Your task to perform on an android device: toggle notifications settings in the gmail app Image 0: 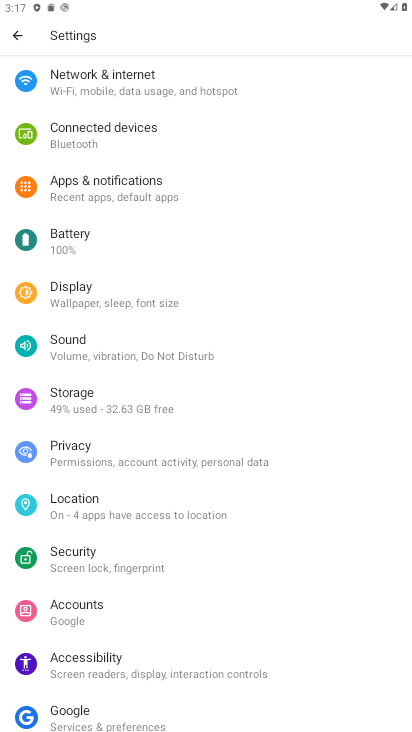
Step 0: press home button
Your task to perform on an android device: toggle notifications settings in the gmail app Image 1: 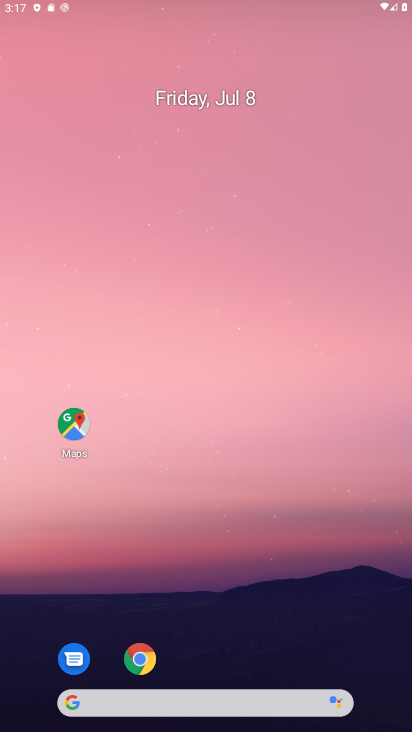
Step 1: drag from (207, 512) to (157, 138)
Your task to perform on an android device: toggle notifications settings in the gmail app Image 2: 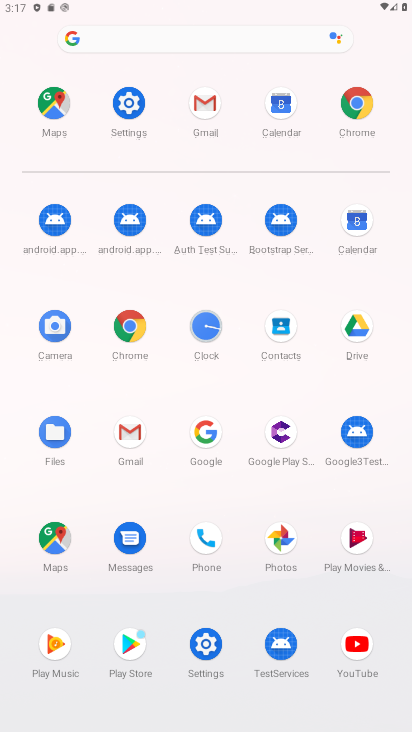
Step 2: click (136, 442)
Your task to perform on an android device: toggle notifications settings in the gmail app Image 3: 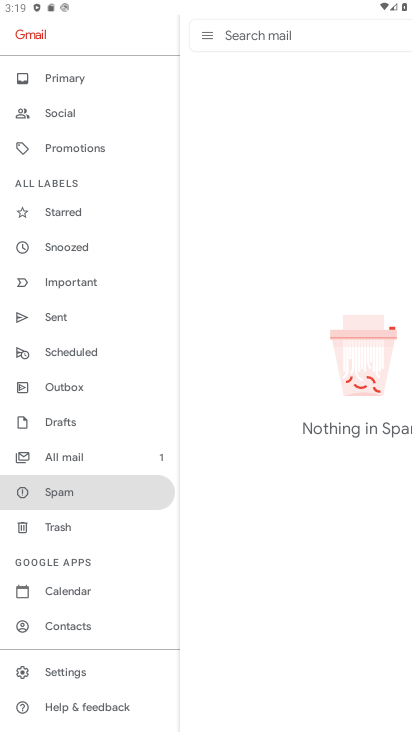
Step 3: click (81, 678)
Your task to perform on an android device: toggle notifications settings in the gmail app Image 4: 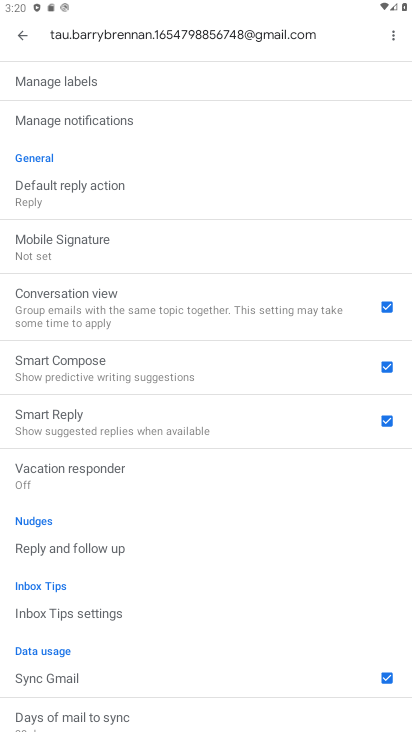
Step 4: click (118, 127)
Your task to perform on an android device: toggle notifications settings in the gmail app Image 5: 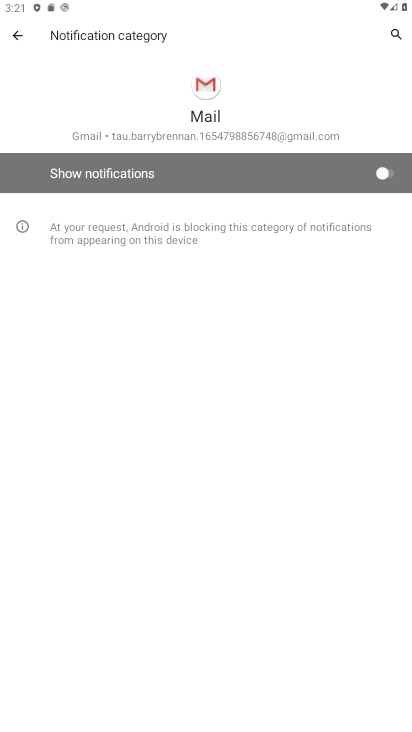
Step 5: click (324, 467)
Your task to perform on an android device: toggle notifications settings in the gmail app Image 6: 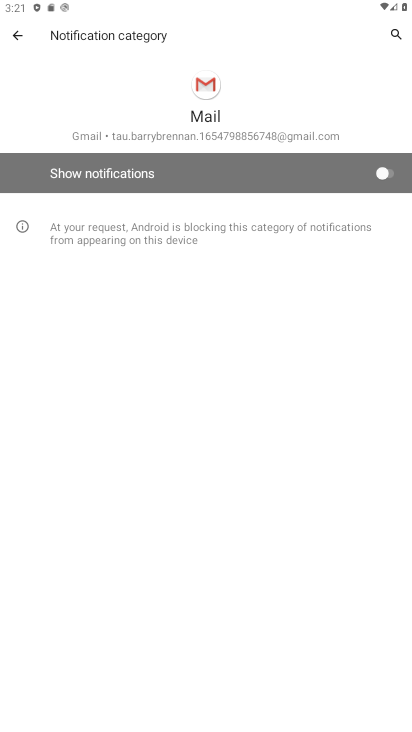
Step 6: click (379, 182)
Your task to perform on an android device: toggle notifications settings in the gmail app Image 7: 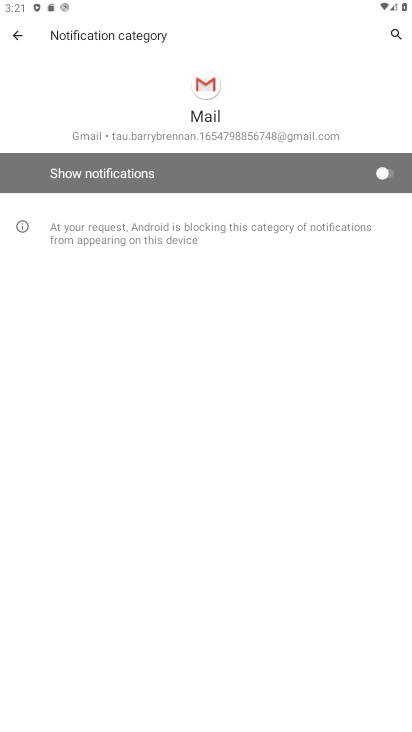
Step 7: task complete